Your task to perform on an android device: Open settings on Google Maps Image 0: 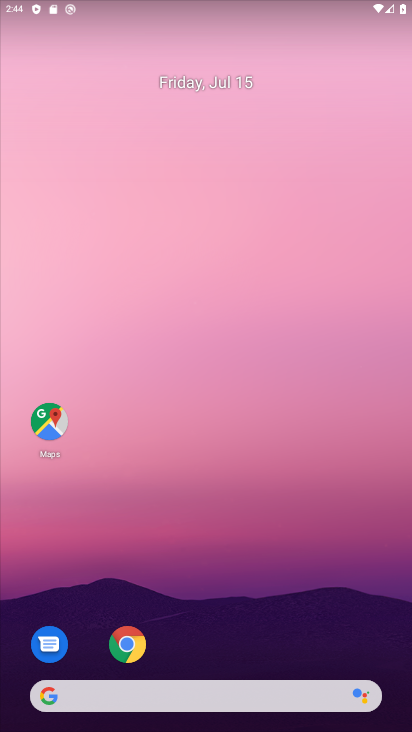
Step 0: click (44, 424)
Your task to perform on an android device: Open settings on Google Maps Image 1: 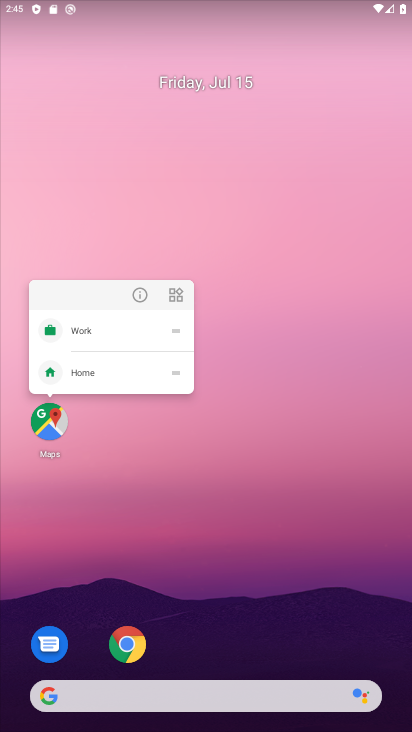
Step 1: click (48, 421)
Your task to perform on an android device: Open settings on Google Maps Image 2: 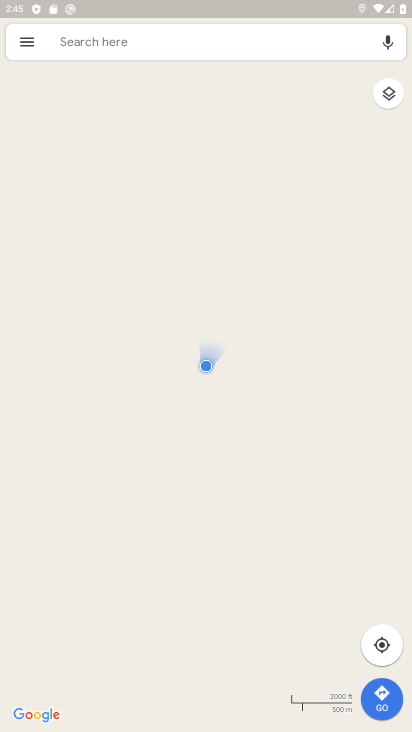
Step 2: click (30, 41)
Your task to perform on an android device: Open settings on Google Maps Image 3: 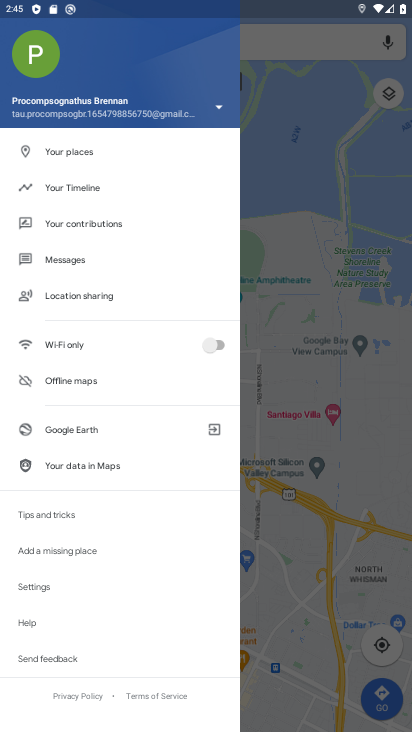
Step 3: click (58, 581)
Your task to perform on an android device: Open settings on Google Maps Image 4: 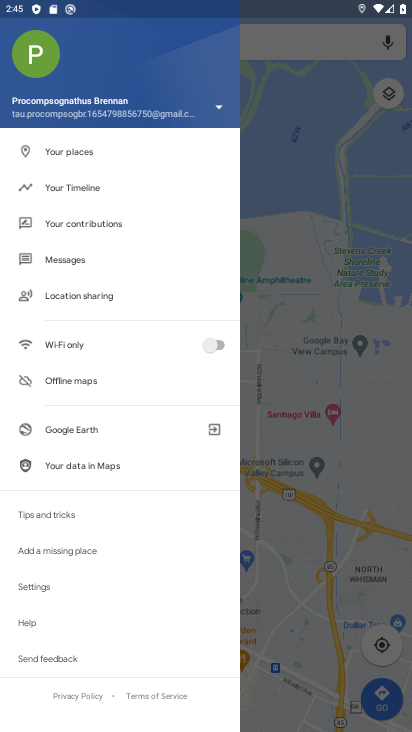
Step 4: click (43, 584)
Your task to perform on an android device: Open settings on Google Maps Image 5: 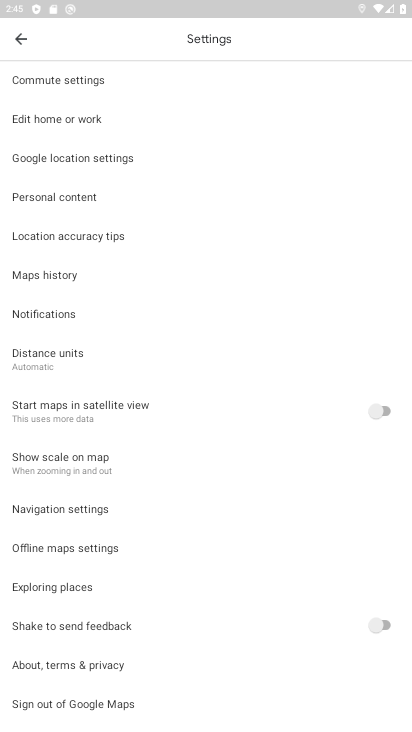
Step 5: task complete